Your task to perform on an android device: empty trash in google photos Image 0: 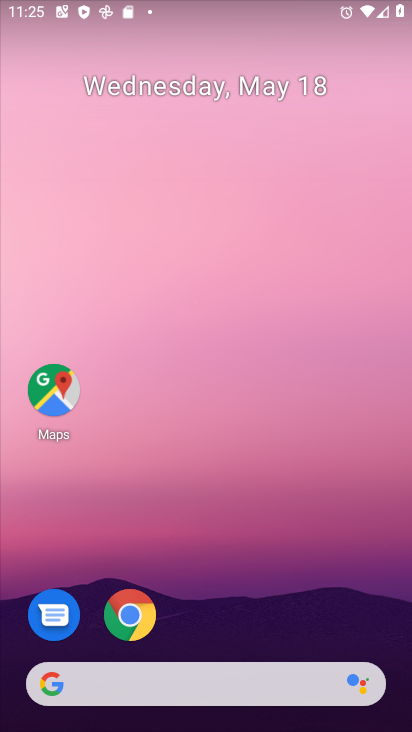
Step 0: drag from (193, 655) to (193, 284)
Your task to perform on an android device: empty trash in google photos Image 1: 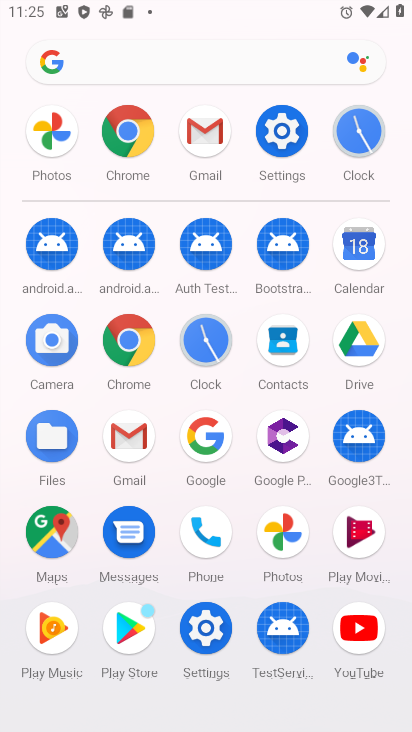
Step 1: click (200, 146)
Your task to perform on an android device: empty trash in google photos Image 2: 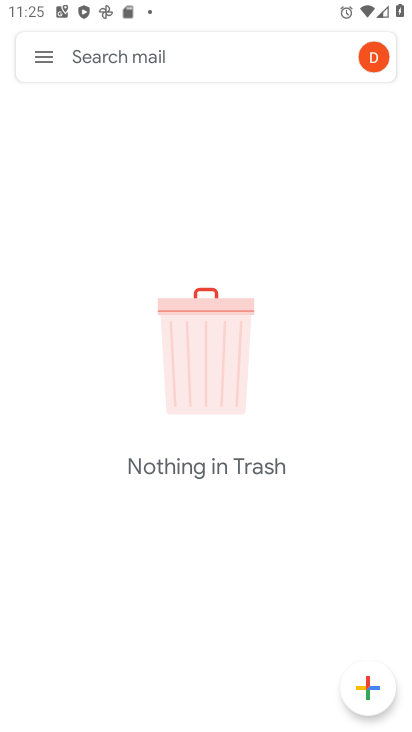
Step 2: task complete